Your task to perform on an android device: change the clock display to show seconds Image 0: 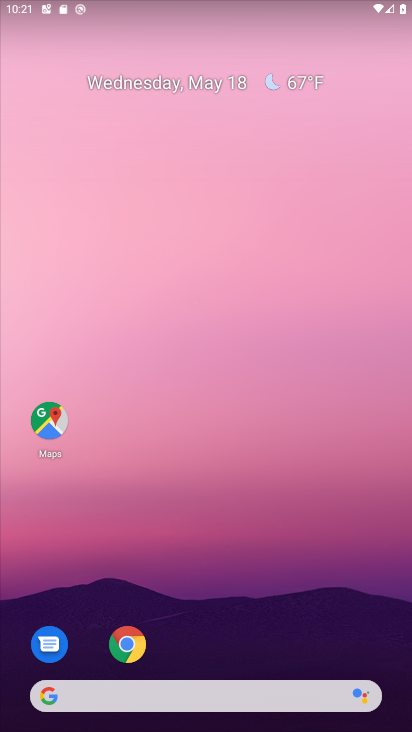
Step 0: drag from (291, 613) to (229, 88)
Your task to perform on an android device: change the clock display to show seconds Image 1: 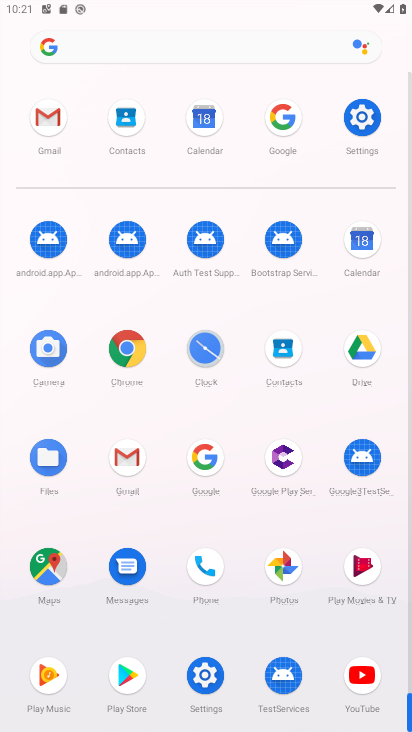
Step 1: click (204, 350)
Your task to perform on an android device: change the clock display to show seconds Image 2: 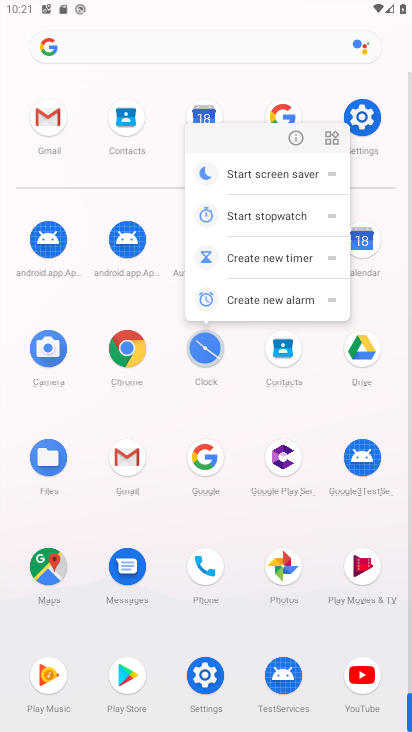
Step 2: click (204, 350)
Your task to perform on an android device: change the clock display to show seconds Image 3: 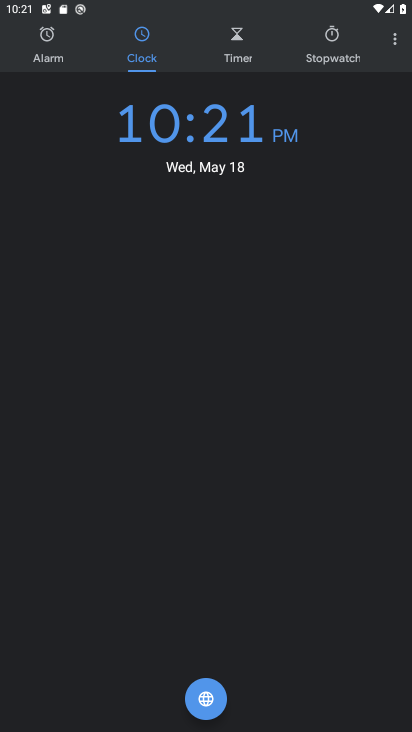
Step 3: click (397, 41)
Your task to perform on an android device: change the clock display to show seconds Image 4: 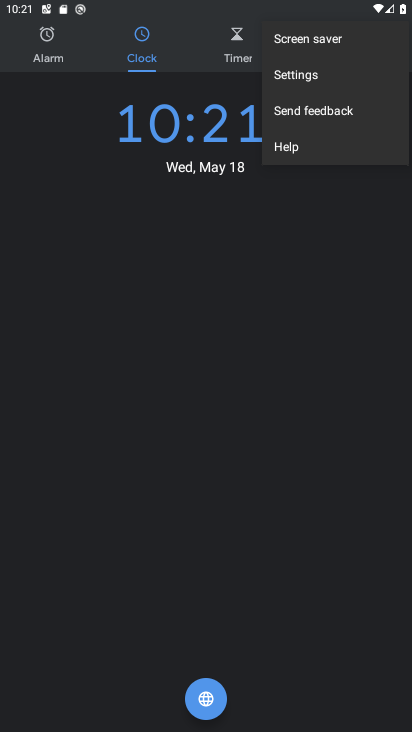
Step 4: click (317, 77)
Your task to perform on an android device: change the clock display to show seconds Image 5: 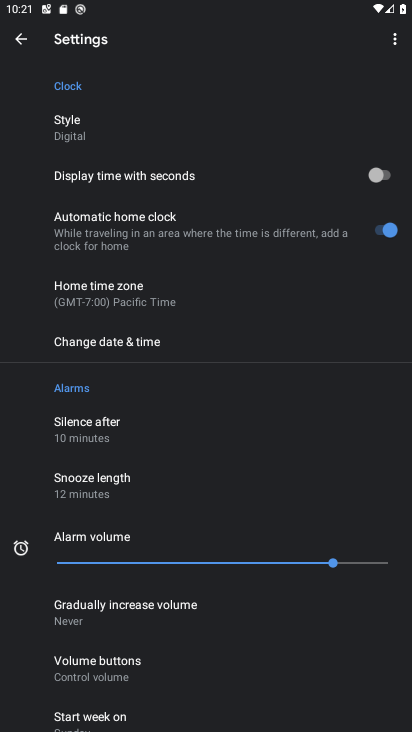
Step 5: click (374, 177)
Your task to perform on an android device: change the clock display to show seconds Image 6: 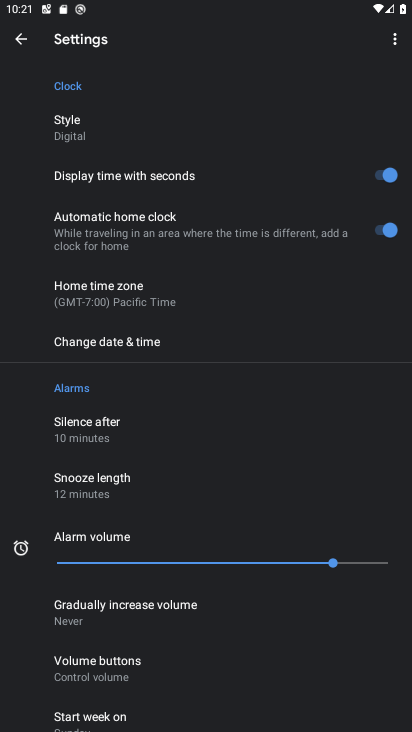
Step 6: task complete